Your task to perform on an android device: Open eBay Image 0: 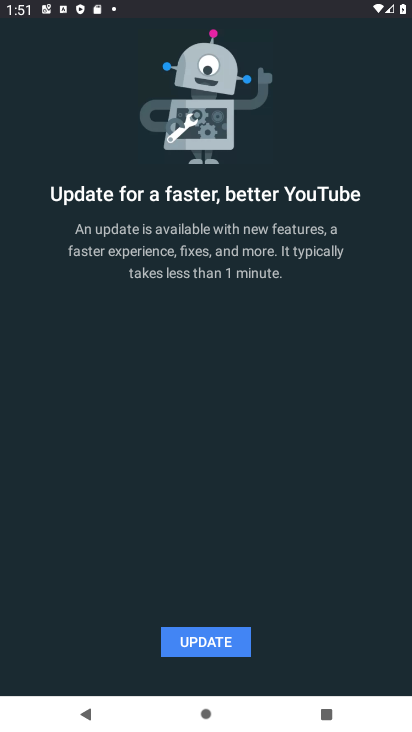
Step 0: press home button
Your task to perform on an android device: Open eBay Image 1: 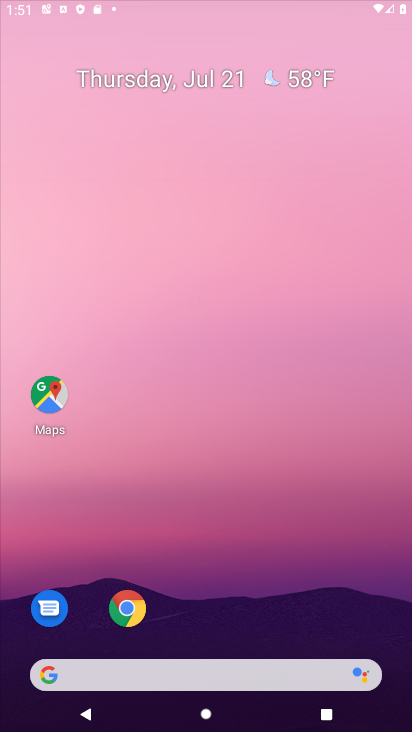
Step 1: drag from (389, 656) to (282, 48)
Your task to perform on an android device: Open eBay Image 2: 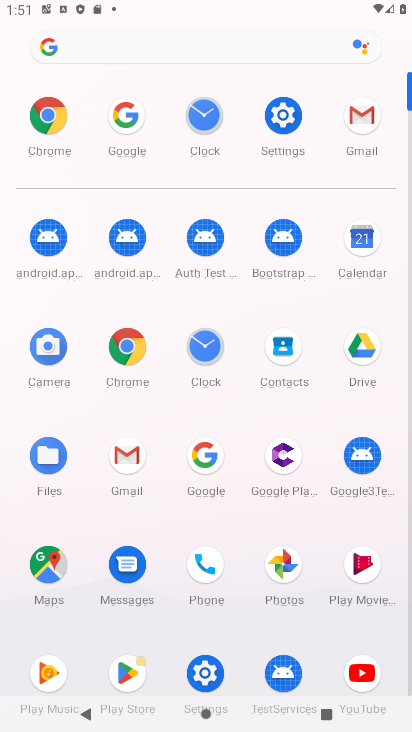
Step 2: click (208, 450)
Your task to perform on an android device: Open eBay Image 3: 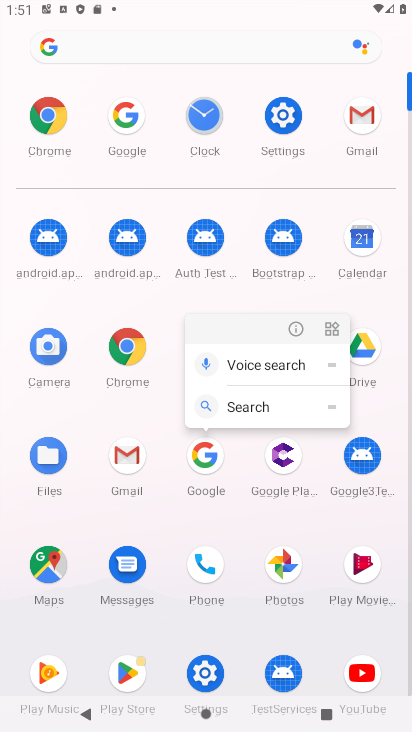
Step 3: click (208, 450)
Your task to perform on an android device: Open eBay Image 4: 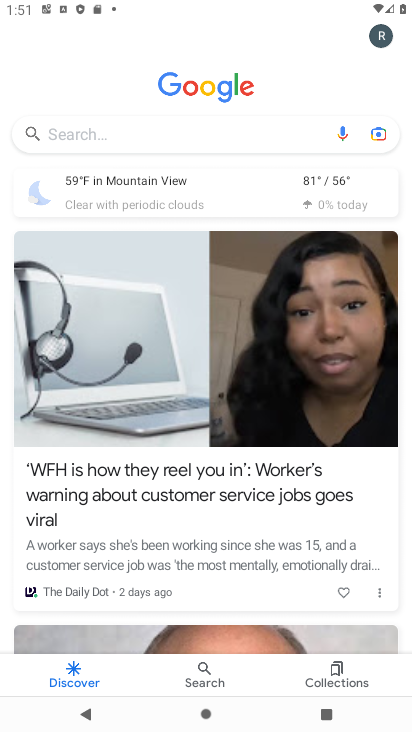
Step 4: click (76, 130)
Your task to perform on an android device: Open eBay Image 5: 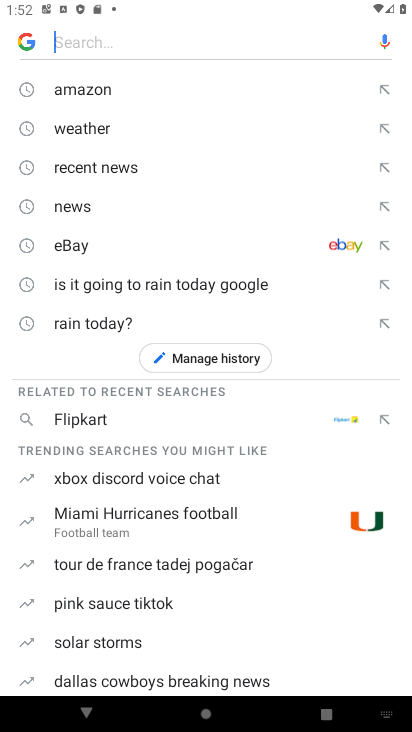
Step 5: click (55, 249)
Your task to perform on an android device: Open eBay Image 6: 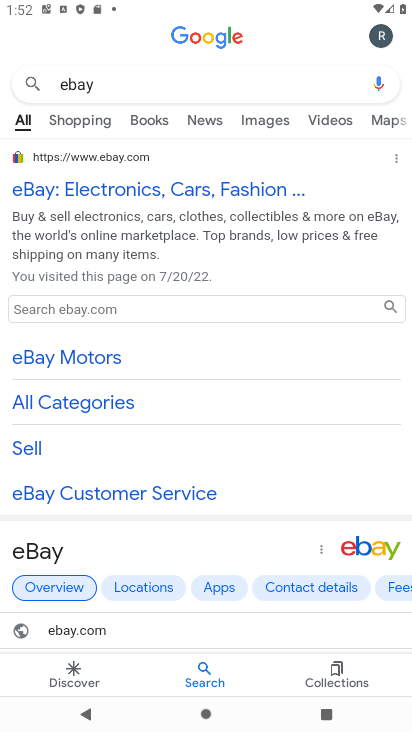
Step 6: task complete